Your task to perform on an android device: What is the recent news? Image 0: 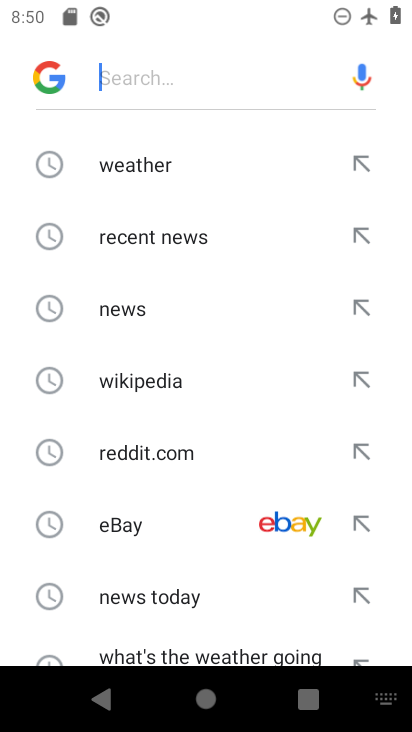
Step 0: press home button
Your task to perform on an android device: What is the recent news? Image 1: 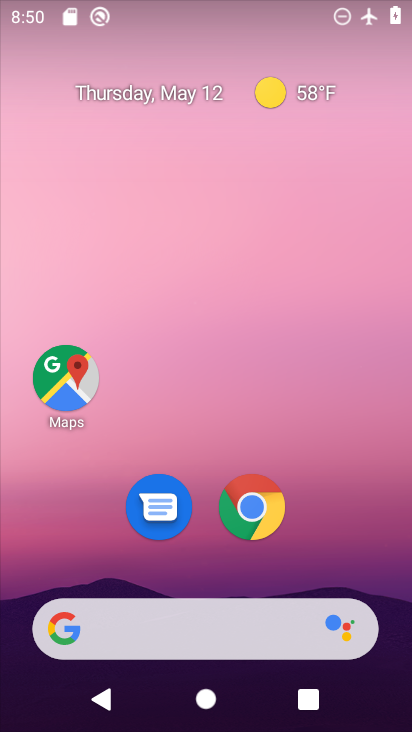
Step 1: drag from (219, 585) to (229, 103)
Your task to perform on an android device: What is the recent news? Image 2: 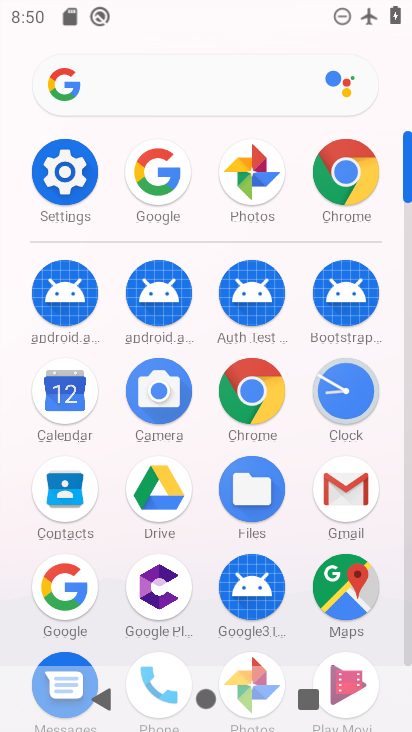
Step 2: click (76, 584)
Your task to perform on an android device: What is the recent news? Image 3: 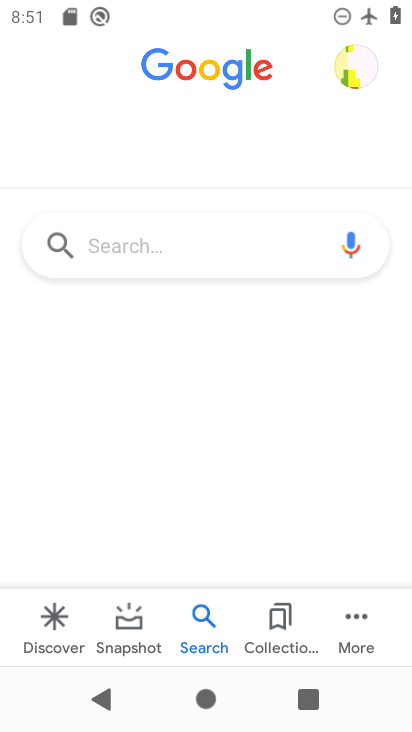
Step 3: click (157, 249)
Your task to perform on an android device: What is the recent news? Image 4: 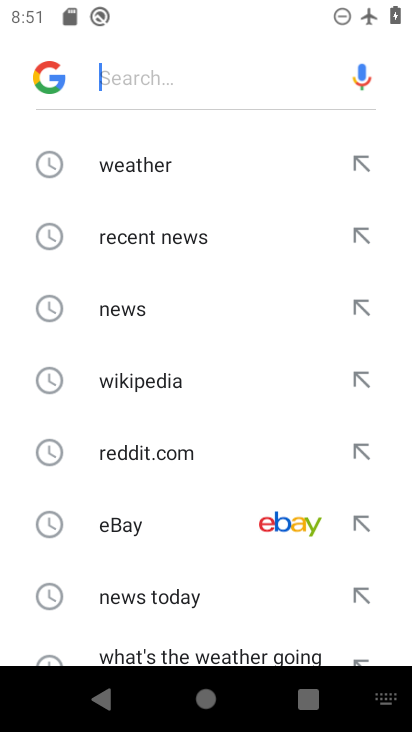
Step 4: type "recent news"
Your task to perform on an android device: What is the recent news? Image 5: 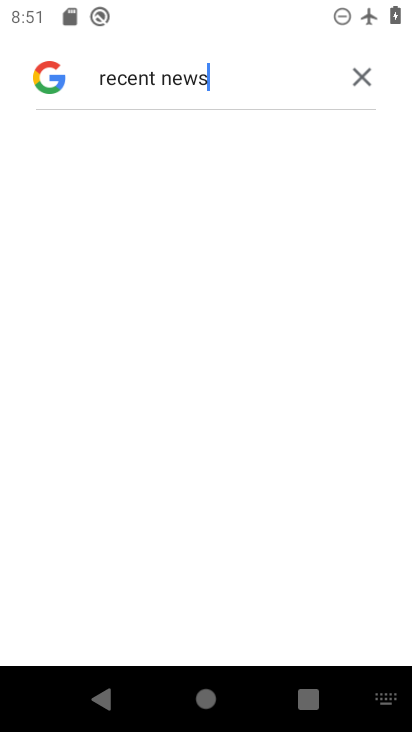
Step 5: task complete